Your task to perform on an android device: Go to Wikipedia Image 0: 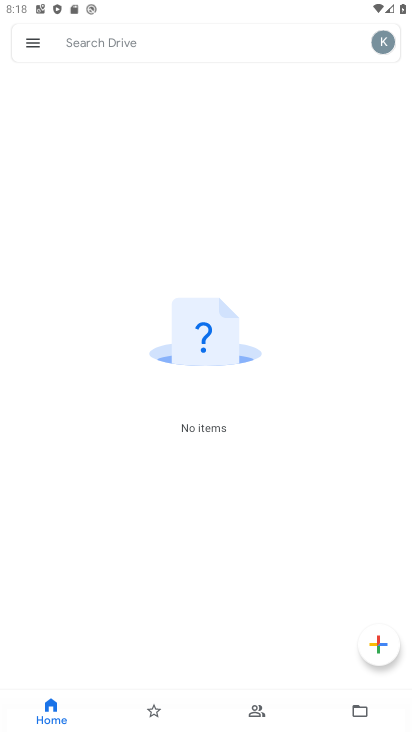
Step 0: press home button
Your task to perform on an android device: Go to Wikipedia Image 1: 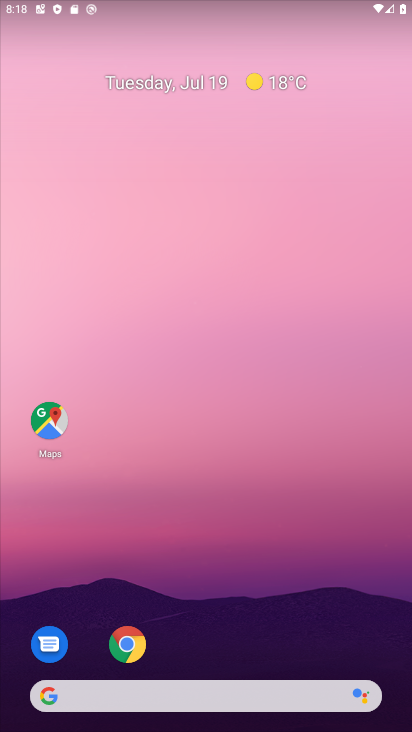
Step 1: click (130, 641)
Your task to perform on an android device: Go to Wikipedia Image 2: 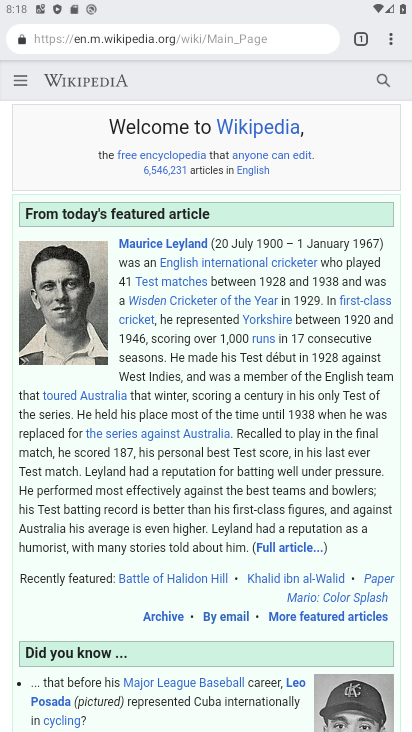
Step 2: task complete